Your task to perform on an android device: change alarm snooze length Image 0: 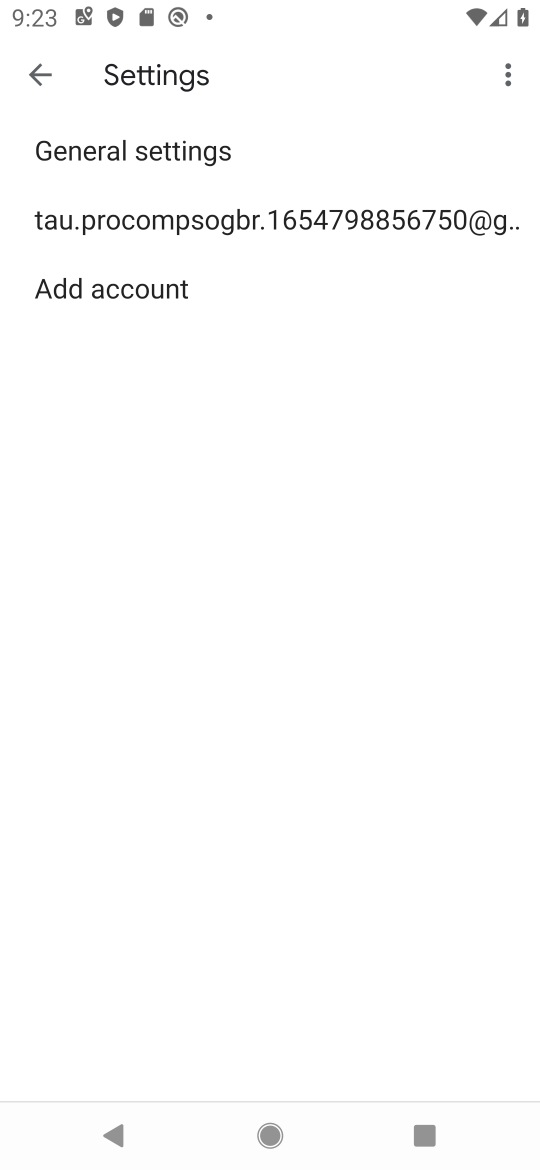
Step 0: press home button
Your task to perform on an android device: change alarm snooze length Image 1: 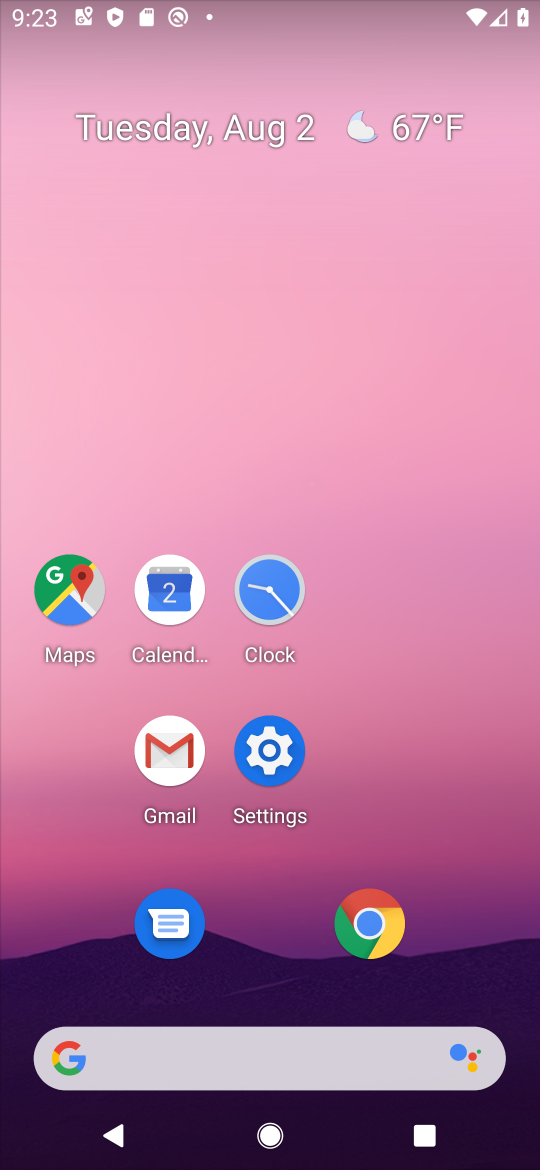
Step 1: click (287, 605)
Your task to perform on an android device: change alarm snooze length Image 2: 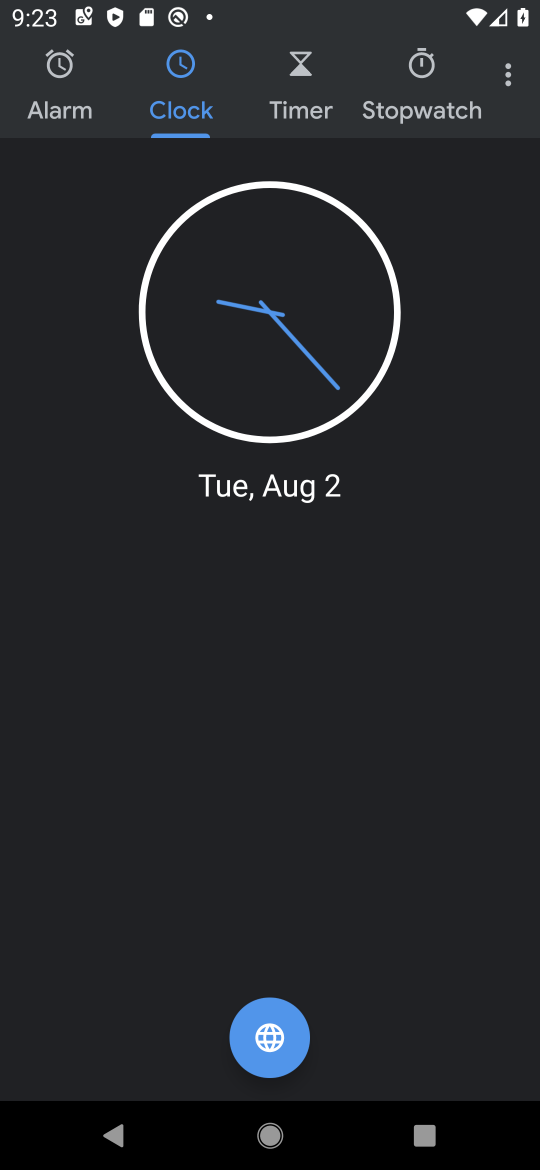
Step 2: click (505, 82)
Your task to perform on an android device: change alarm snooze length Image 3: 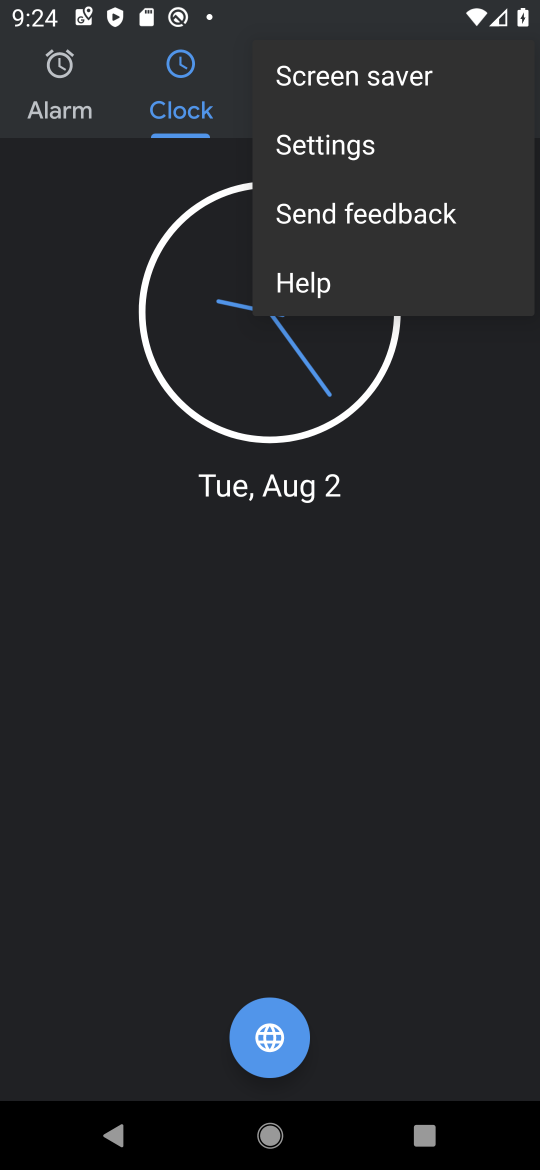
Step 3: click (362, 154)
Your task to perform on an android device: change alarm snooze length Image 4: 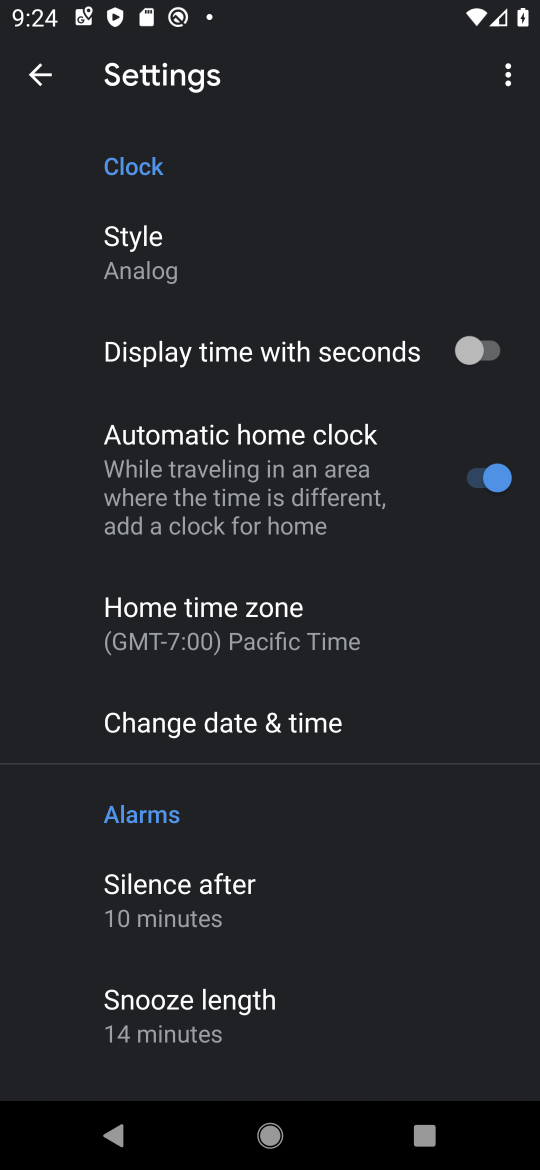
Step 4: click (164, 1009)
Your task to perform on an android device: change alarm snooze length Image 5: 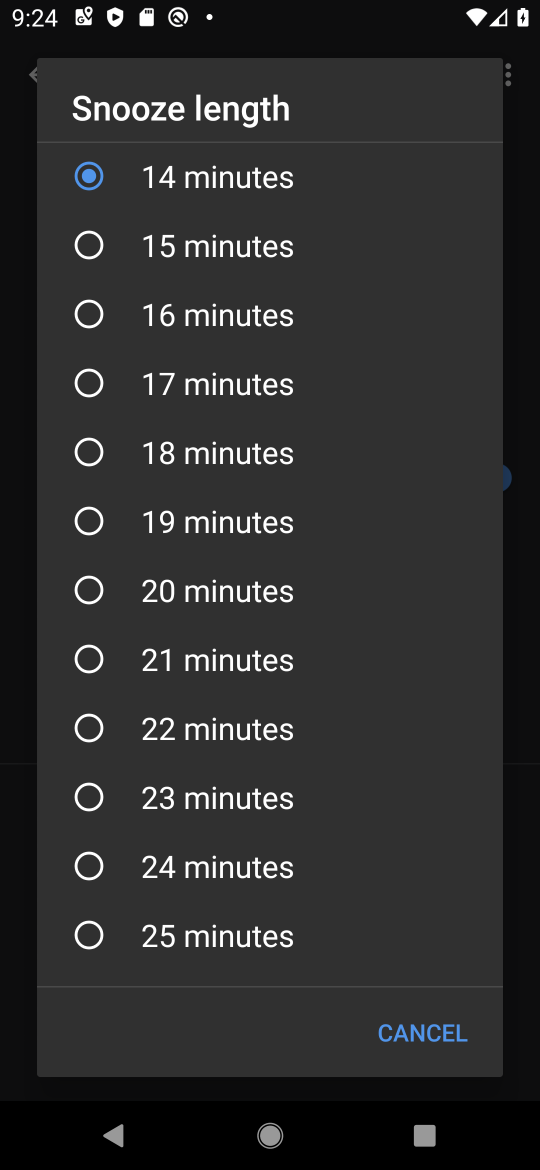
Step 5: click (102, 387)
Your task to perform on an android device: change alarm snooze length Image 6: 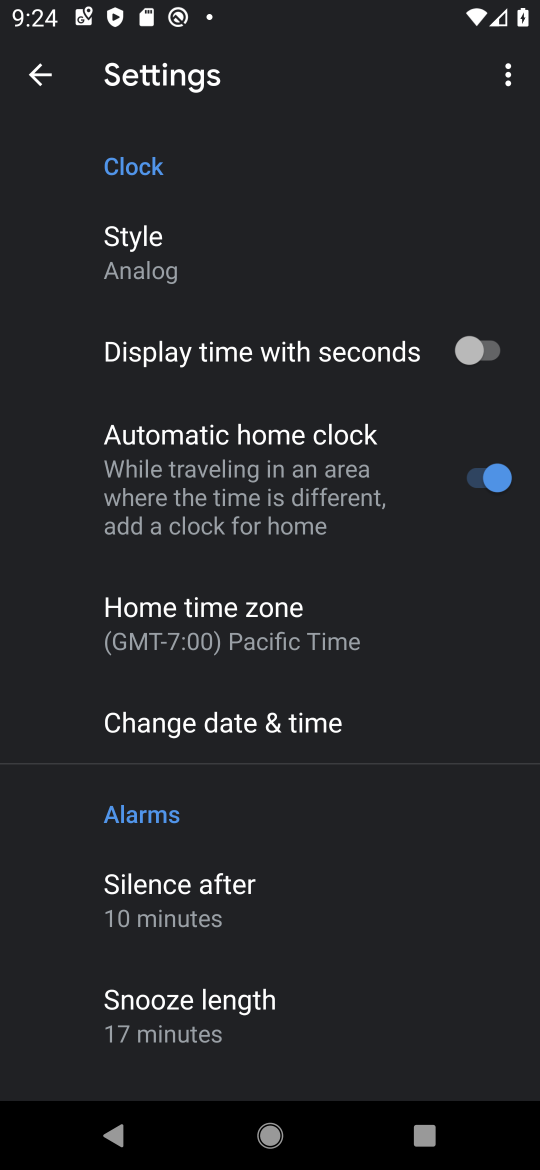
Step 6: task complete